Your task to perform on an android device: turn off location Image 0: 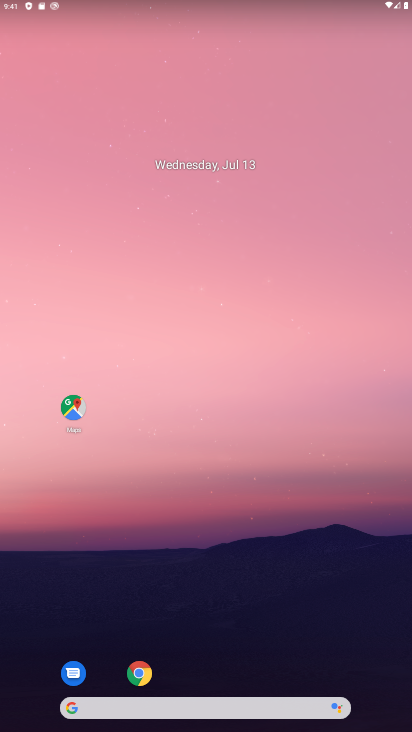
Step 0: drag from (199, 679) to (246, 299)
Your task to perform on an android device: turn off location Image 1: 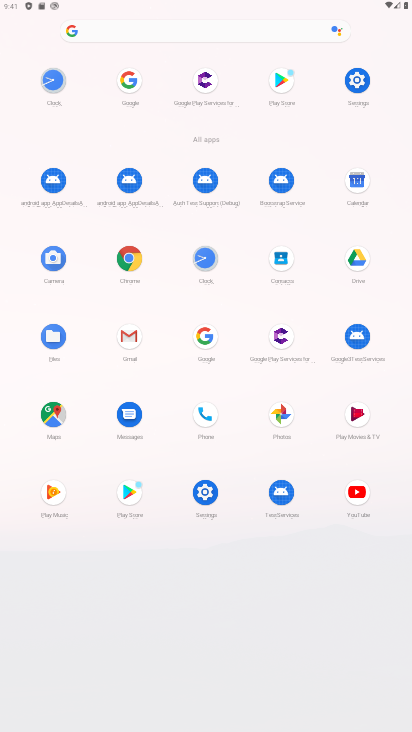
Step 1: click (358, 80)
Your task to perform on an android device: turn off location Image 2: 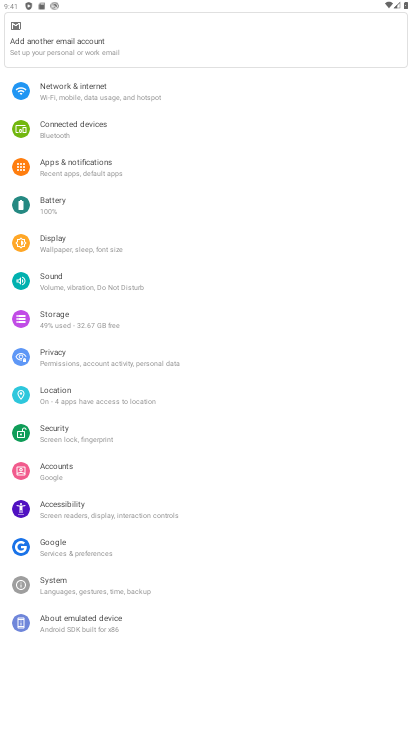
Step 2: click (55, 394)
Your task to perform on an android device: turn off location Image 3: 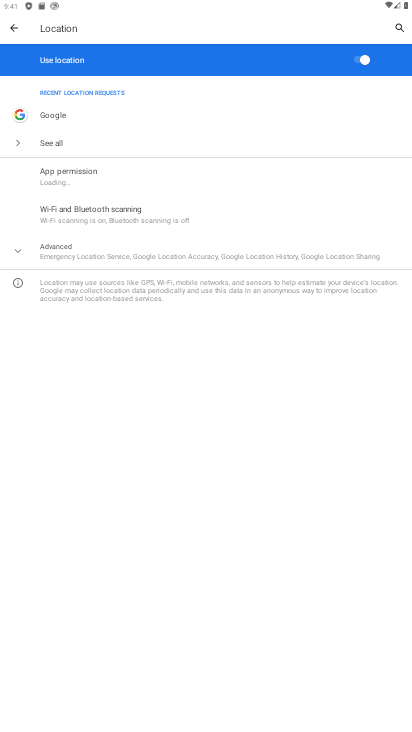
Step 3: click (63, 259)
Your task to perform on an android device: turn off location Image 4: 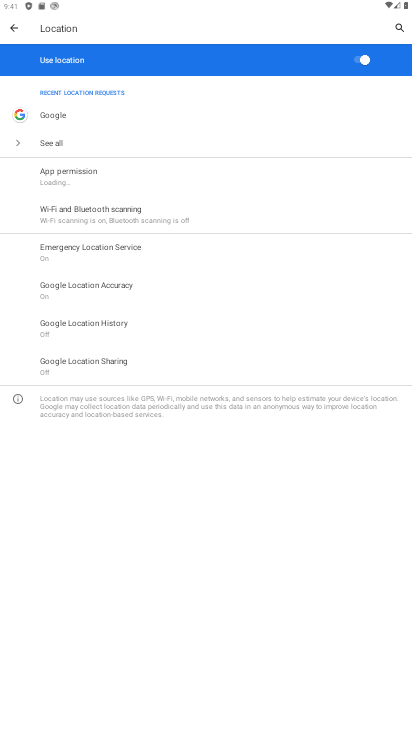
Step 4: task complete